Your task to perform on an android device: Find coffee shops on Maps Image 0: 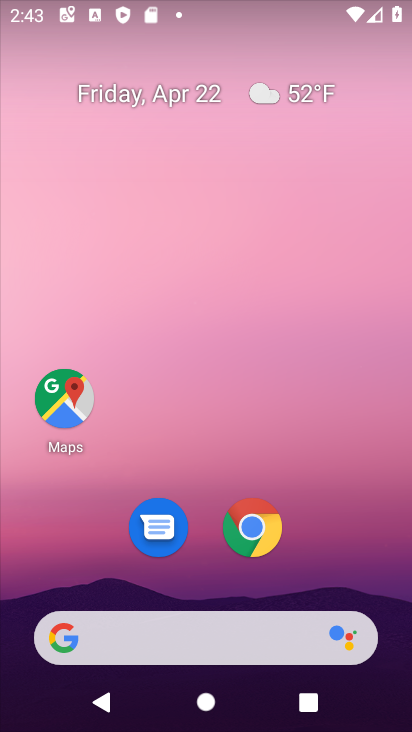
Step 0: drag from (342, 534) to (267, 194)
Your task to perform on an android device: Find coffee shops on Maps Image 1: 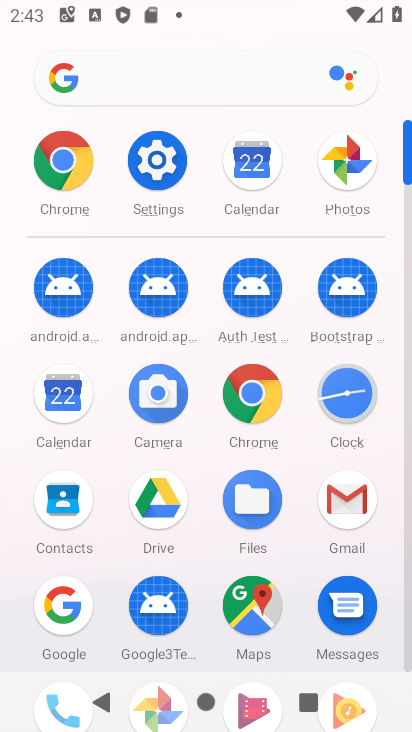
Step 1: click (250, 611)
Your task to perform on an android device: Find coffee shops on Maps Image 2: 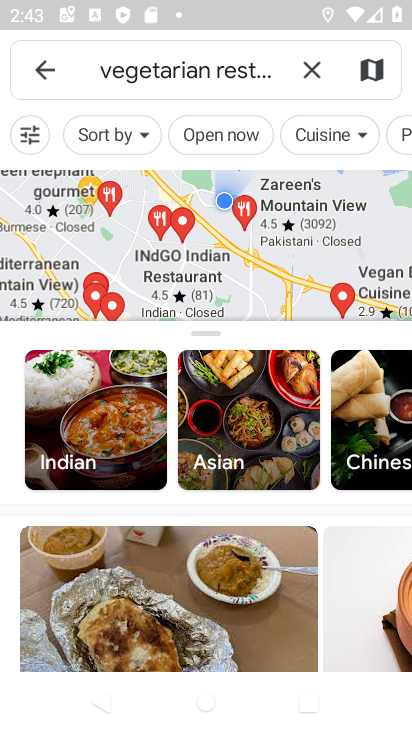
Step 2: click (310, 61)
Your task to perform on an android device: Find coffee shops on Maps Image 3: 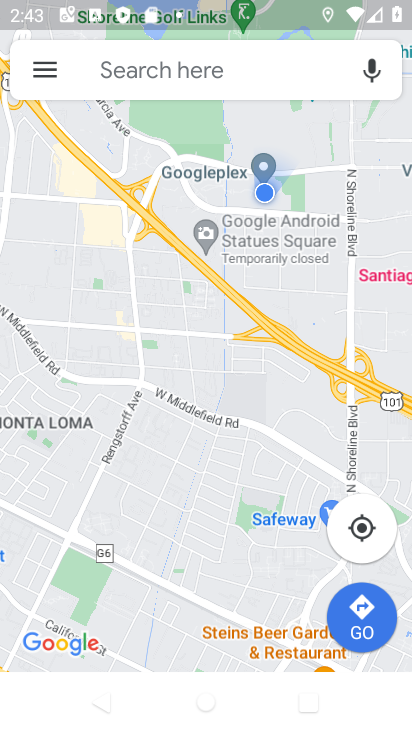
Step 3: click (281, 75)
Your task to perform on an android device: Find coffee shops on Maps Image 4: 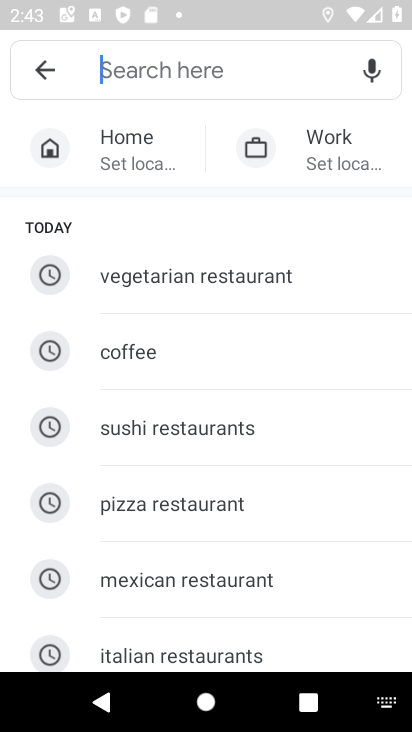
Step 4: click (140, 347)
Your task to perform on an android device: Find coffee shops on Maps Image 5: 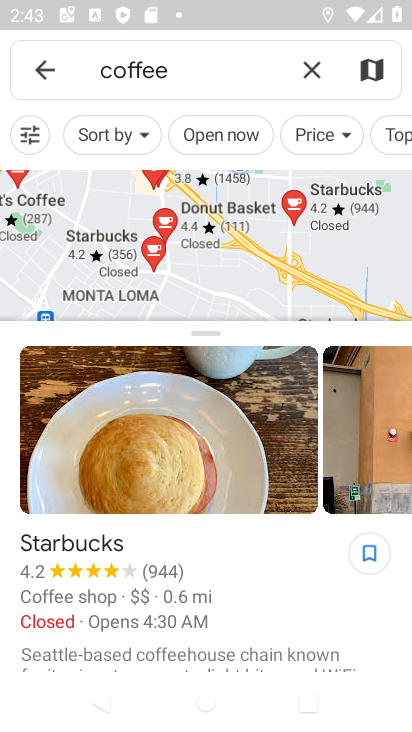
Step 5: task complete